Your task to perform on an android device: toggle show notifications on the lock screen Image 0: 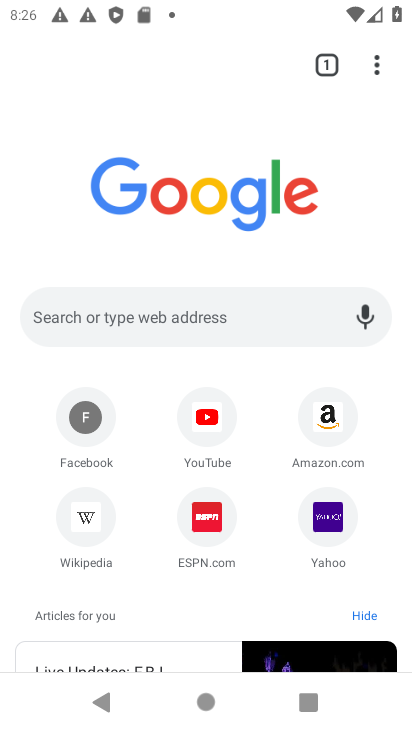
Step 0: press home button
Your task to perform on an android device: toggle show notifications on the lock screen Image 1: 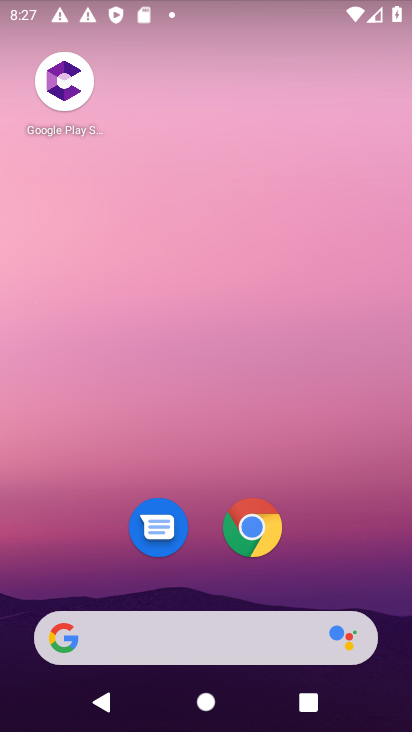
Step 1: drag from (391, 713) to (151, 12)
Your task to perform on an android device: toggle show notifications on the lock screen Image 2: 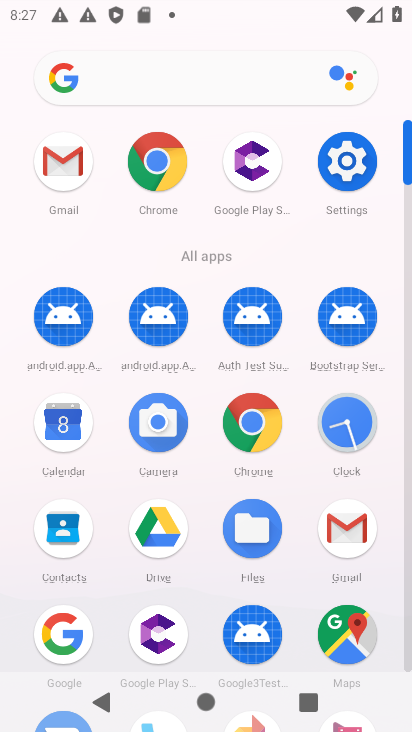
Step 2: click (360, 165)
Your task to perform on an android device: toggle show notifications on the lock screen Image 3: 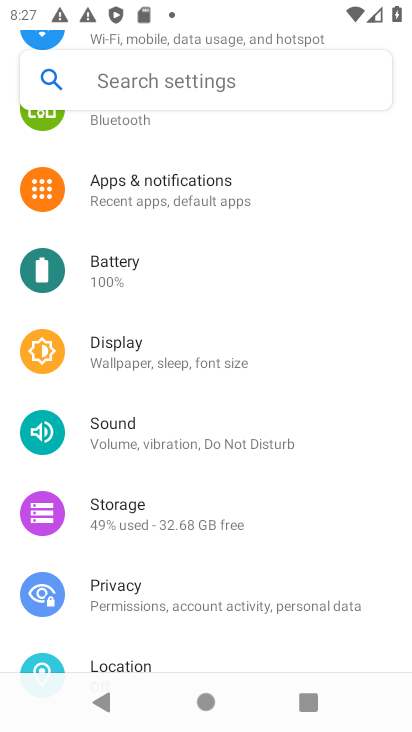
Step 3: click (160, 180)
Your task to perform on an android device: toggle show notifications on the lock screen Image 4: 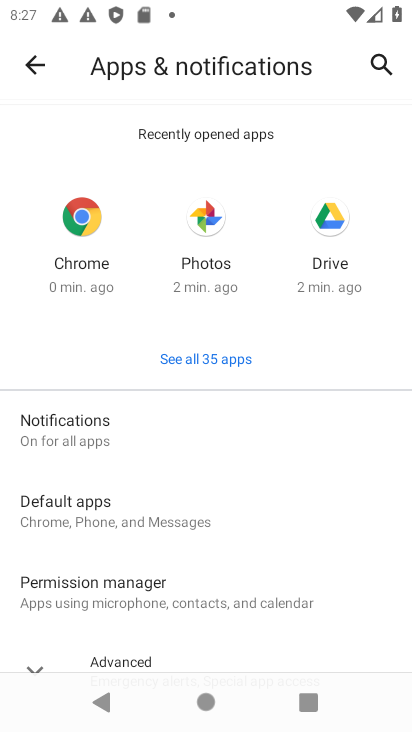
Step 4: drag from (336, 643) to (220, 169)
Your task to perform on an android device: toggle show notifications on the lock screen Image 5: 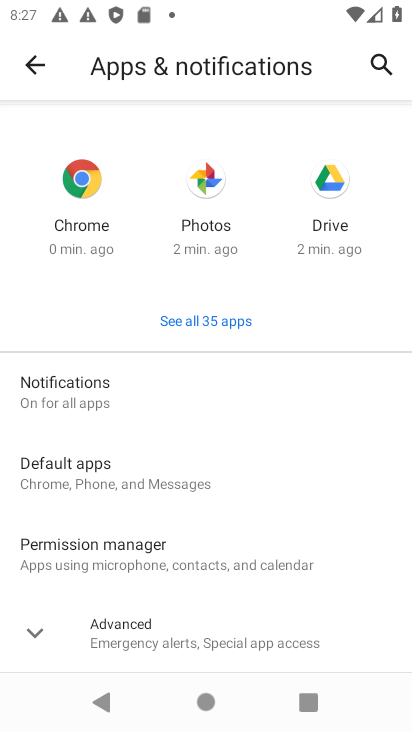
Step 5: click (28, 619)
Your task to perform on an android device: toggle show notifications on the lock screen Image 6: 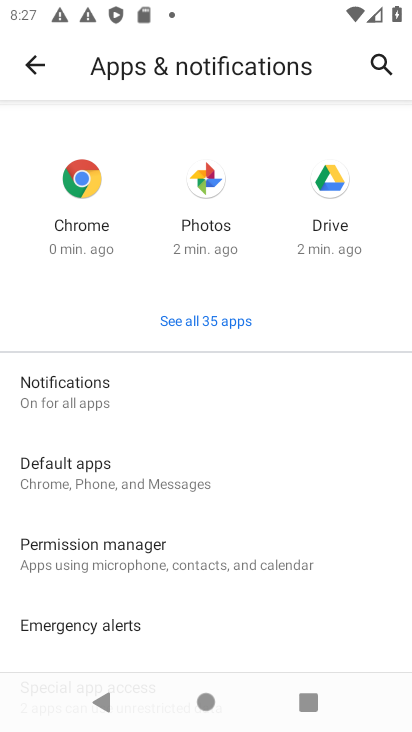
Step 6: click (36, 395)
Your task to perform on an android device: toggle show notifications on the lock screen Image 7: 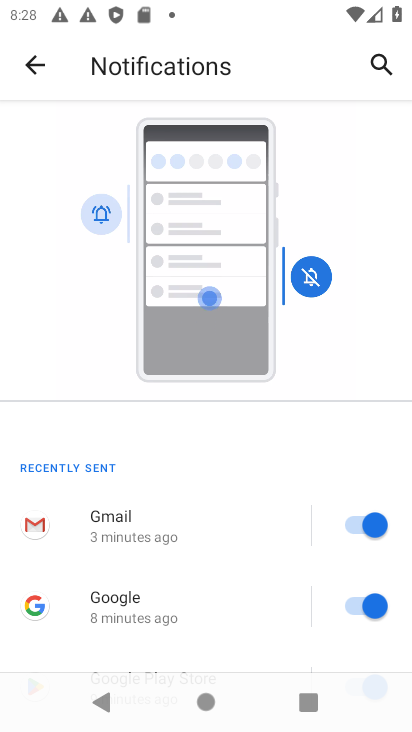
Step 7: drag from (259, 613) to (71, 150)
Your task to perform on an android device: toggle show notifications on the lock screen Image 8: 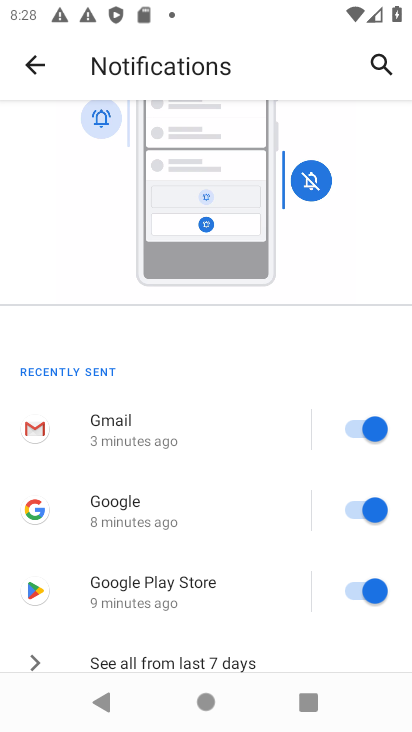
Step 8: drag from (242, 618) to (62, 165)
Your task to perform on an android device: toggle show notifications on the lock screen Image 9: 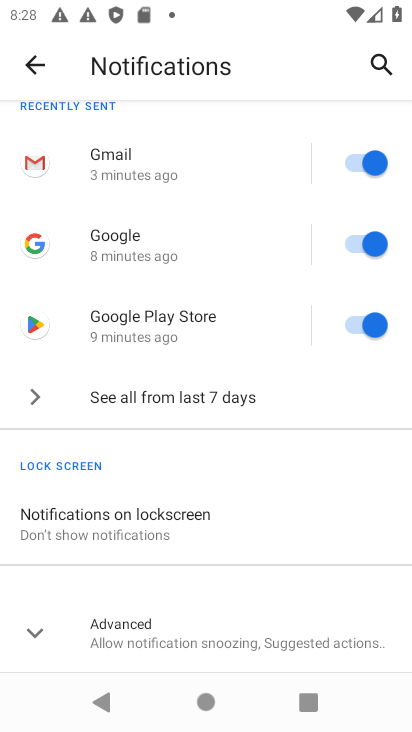
Step 9: click (123, 516)
Your task to perform on an android device: toggle show notifications on the lock screen Image 10: 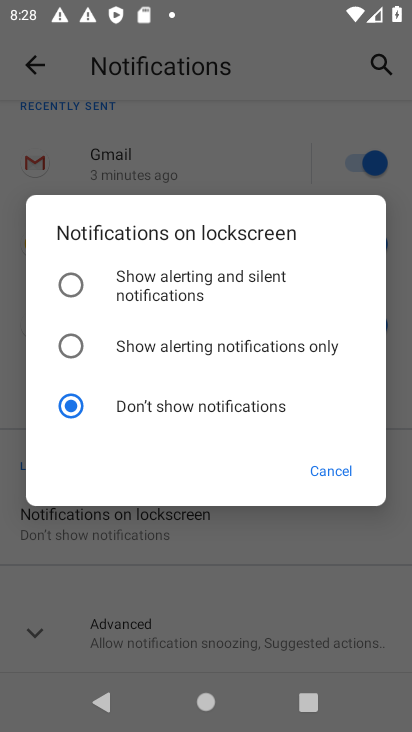
Step 10: click (66, 284)
Your task to perform on an android device: toggle show notifications on the lock screen Image 11: 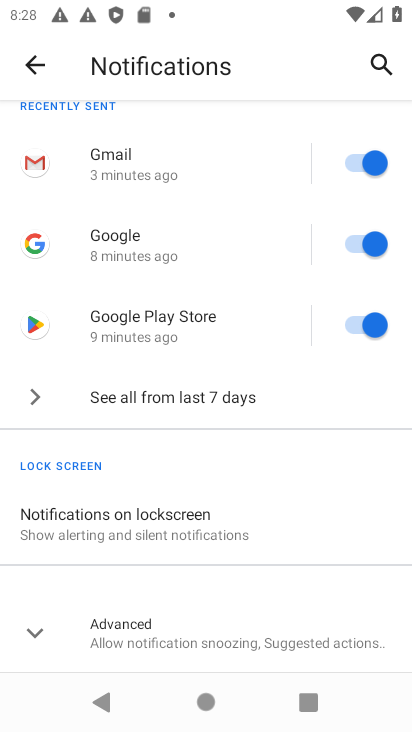
Step 11: task complete